Your task to perform on an android device: Check the settings for the Amazon Shopping app Image 0: 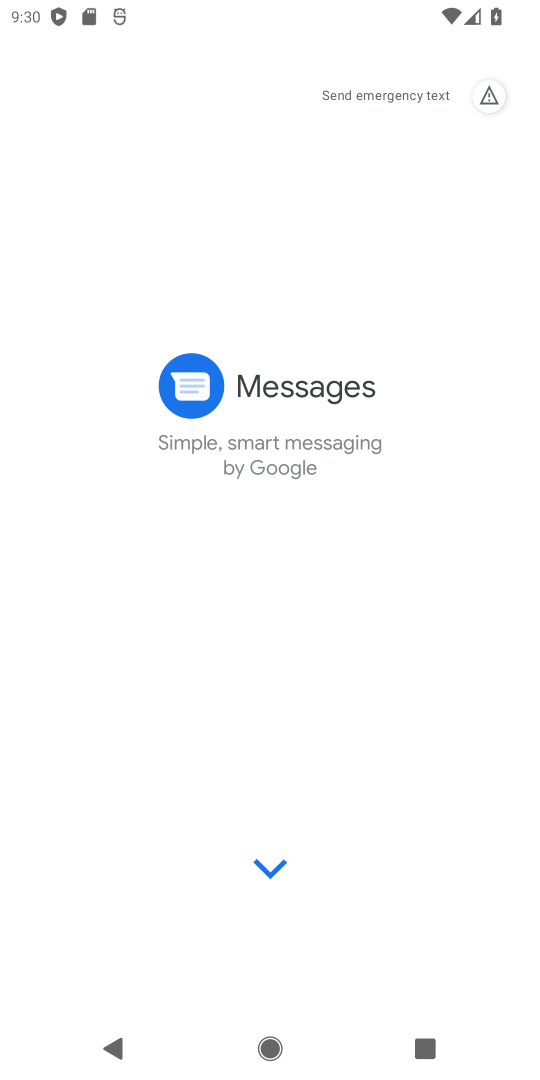
Step 0: press home button
Your task to perform on an android device: Check the settings for the Amazon Shopping app Image 1: 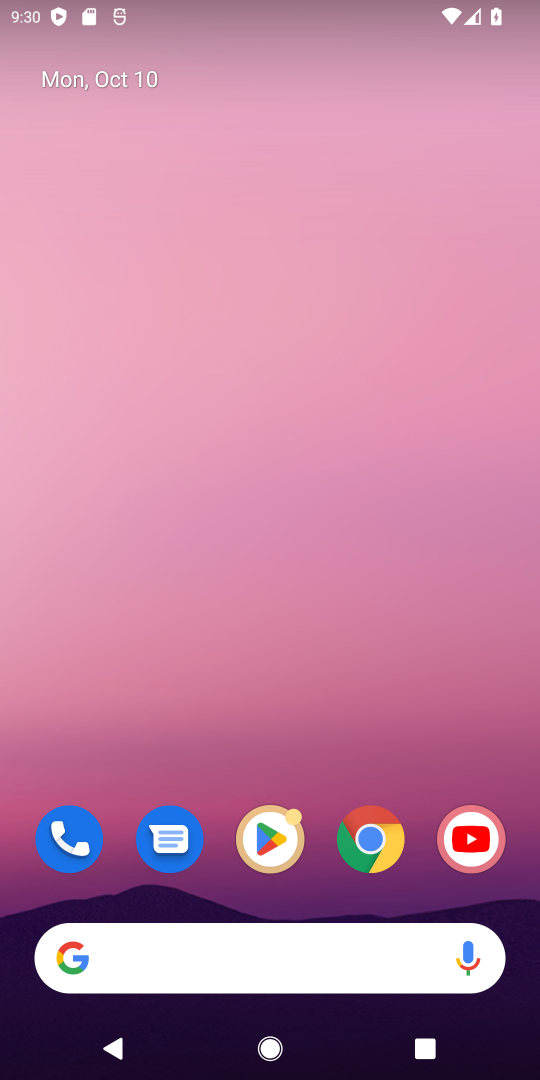
Step 1: task complete